Your task to perform on an android device: change alarm snooze length Image 0: 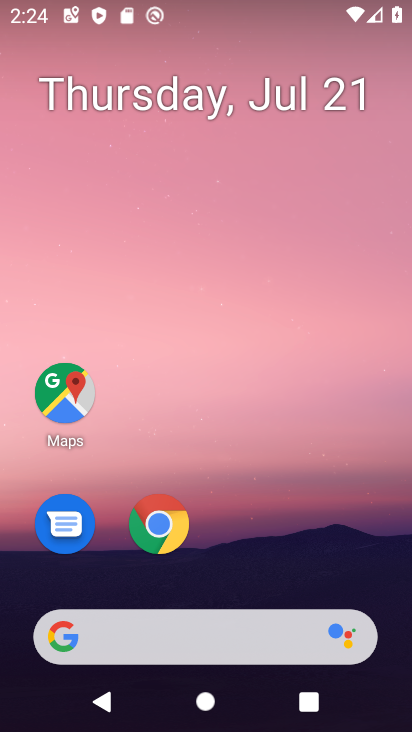
Step 0: drag from (289, 576) to (320, 1)
Your task to perform on an android device: change alarm snooze length Image 1: 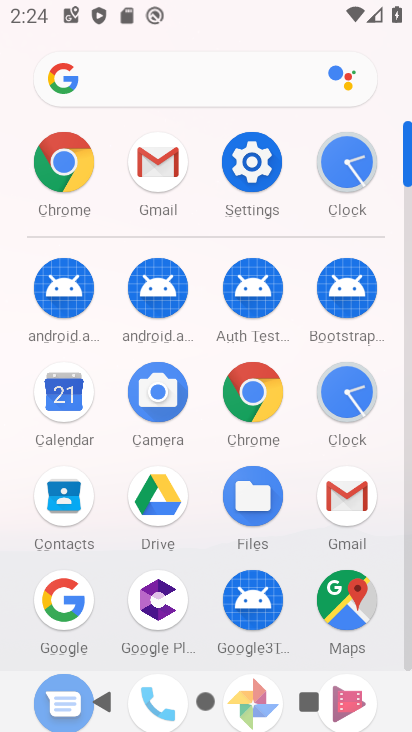
Step 1: click (360, 159)
Your task to perform on an android device: change alarm snooze length Image 2: 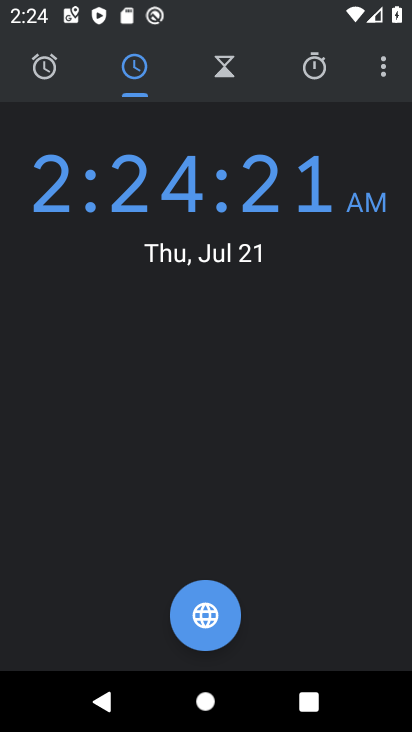
Step 2: click (379, 71)
Your task to perform on an android device: change alarm snooze length Image 3: 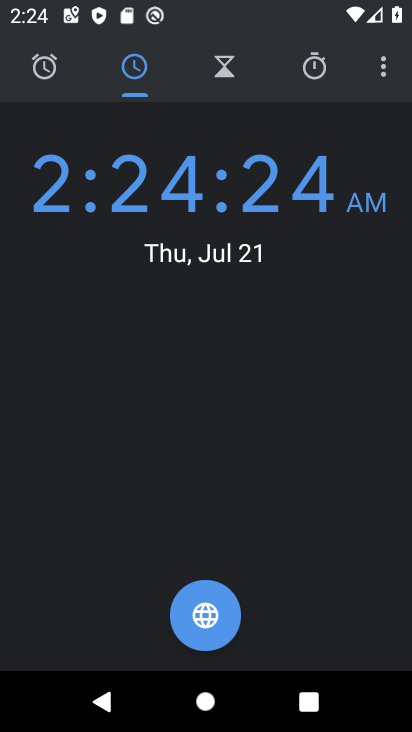
Step 3: click (385, 63)
Your task to perform on an android device: change alarm snooze length Image 4: 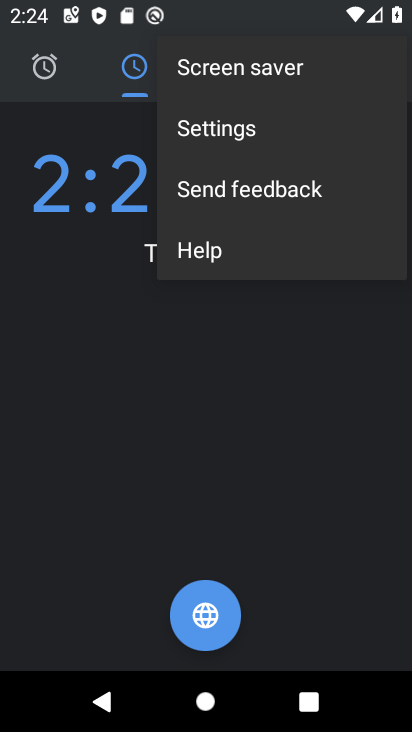
Step 4: click (249, 122)
Your task to perform on an android device: change alarm snooze length Image 5: 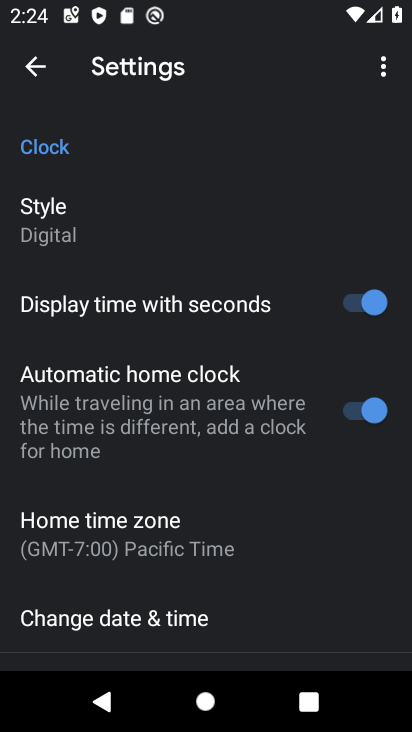
Step 5: drag from (198, 475) to (319, 38)
Your task to perform on an android device: change alarm snooze length Image 6: 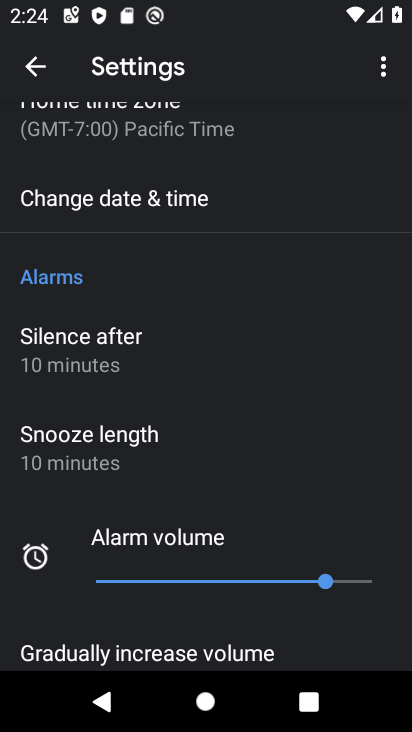
Step 6: click (115, 440)
Your task to perform on an android device: change alarm snooze length Image 7: 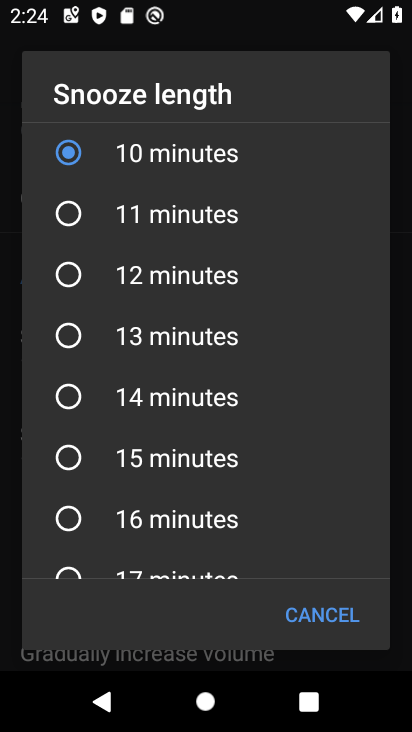
Step 7: click (69, 277)
Your task to perform on an android device: change alarm snooze length Image 8: 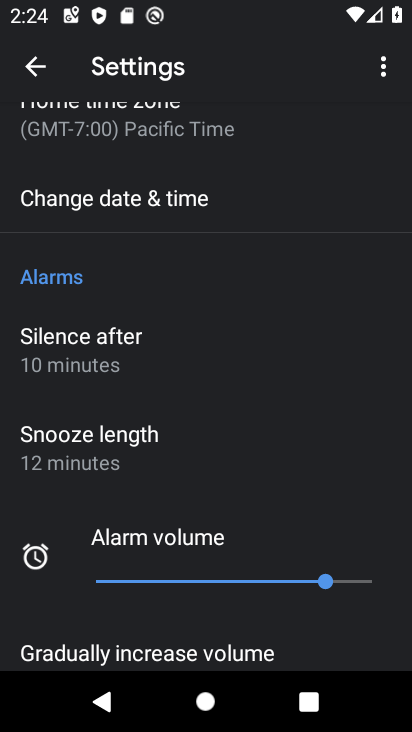
Step 8: task complete